Your task to perform on an android device: turn off airplane mode Image 0: 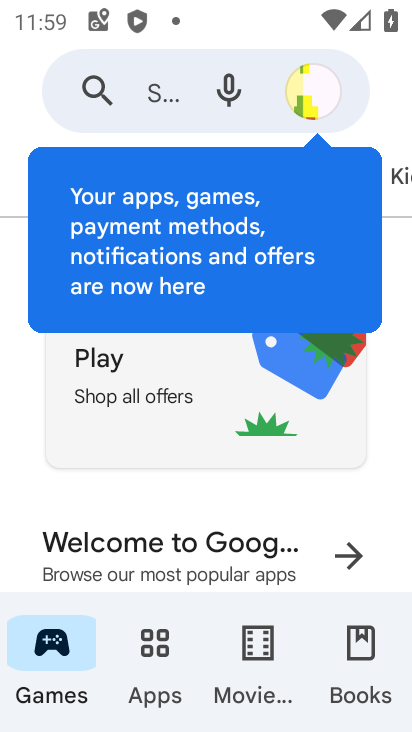
Step 0: press home button
Your task to perform on an android device: turn off airplane mode Image 1: 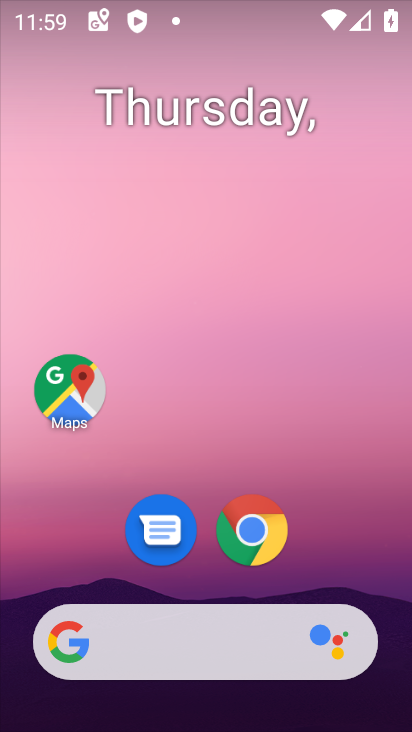
Step 1: drag from (350, 556) to (334, 165)
Your task to perform on an android device: turn off airplane mode Image 2: 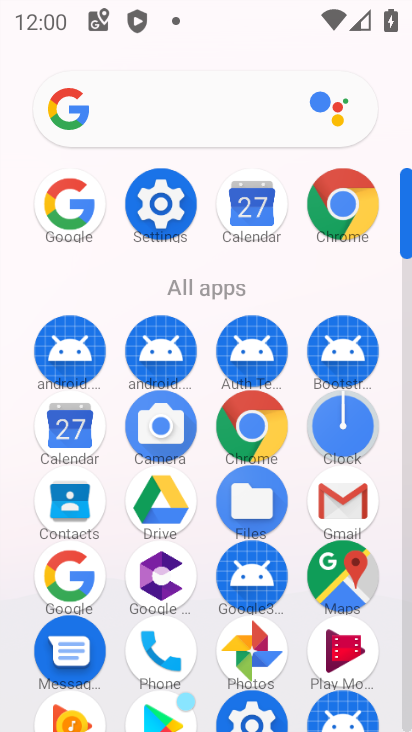
Step 2: click (160, 203)
Your task to perform on an android device: turn off airplane mode Image 3: 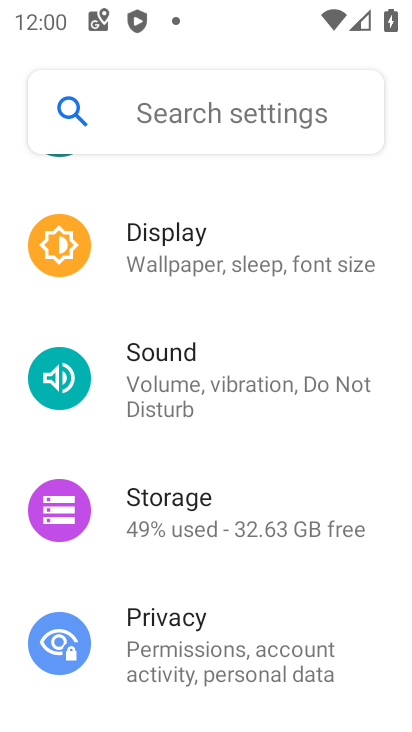
Step 3: drag from (260, 197) to (218, 317)
Your task to perform on an android device: turn off airplane mode Image 4: 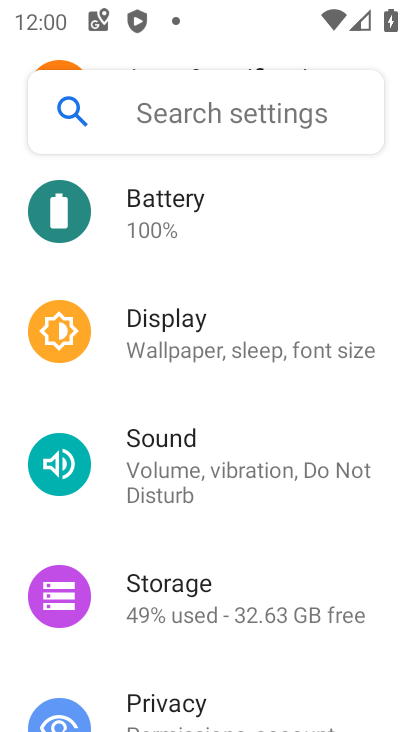
Step 4: drag from (232, 259) to (205, 361)
Your task to perform on an android device: turn off airplane mode Image 5: 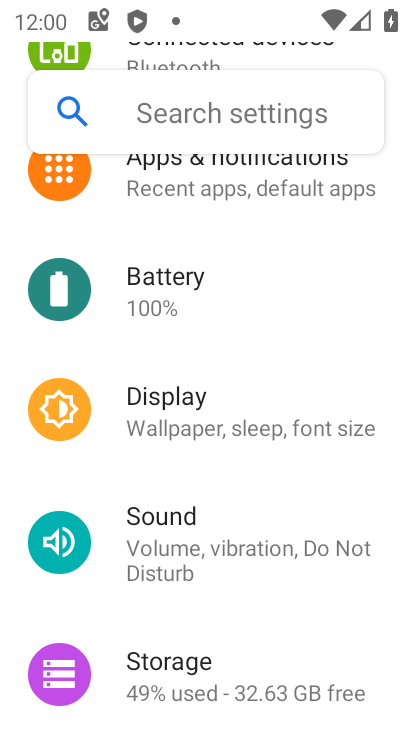
Step 5: drag from (231, 236) to (253, 363)
Your task to perform on an android device: turn off airplane mode Image 6: 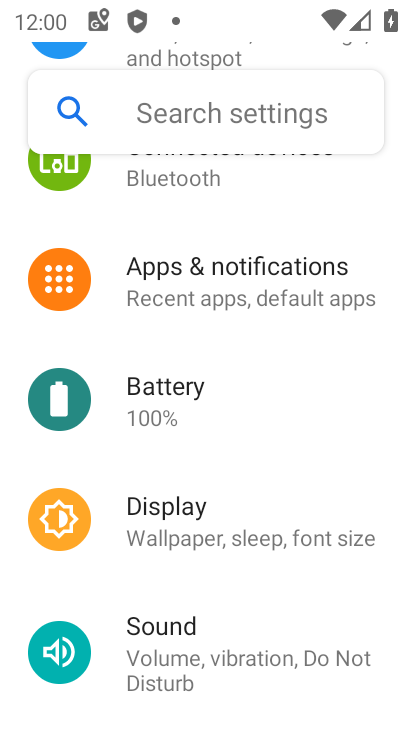
Step 6: drag from (248, 228) to (259, 361)
Your task to perform on an android device: turn off airplane mode Image 7: 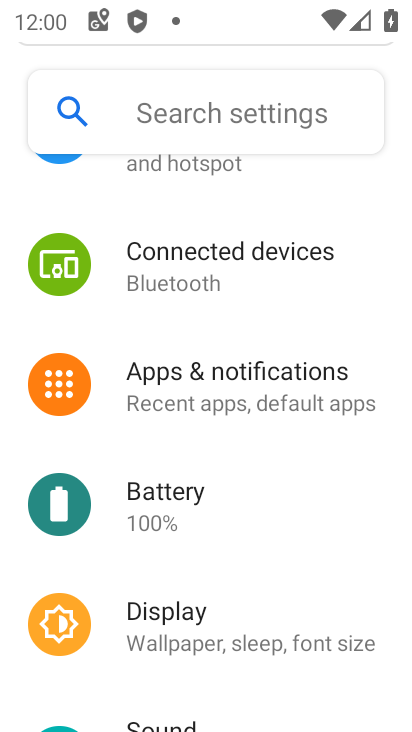
Step 7: drag from (257, 210) to (293, 436)
Your task to perform on an android device: turn off airplane mode Image 8: 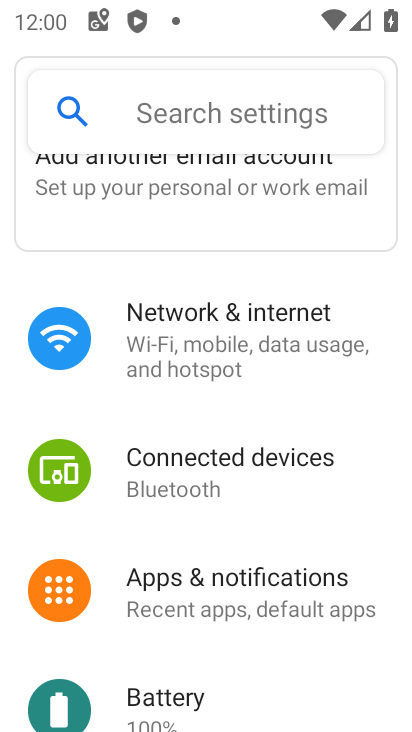
Step 8: click (246, 326)
Your task to perform on an android device: turn off airplane mode Image 9: 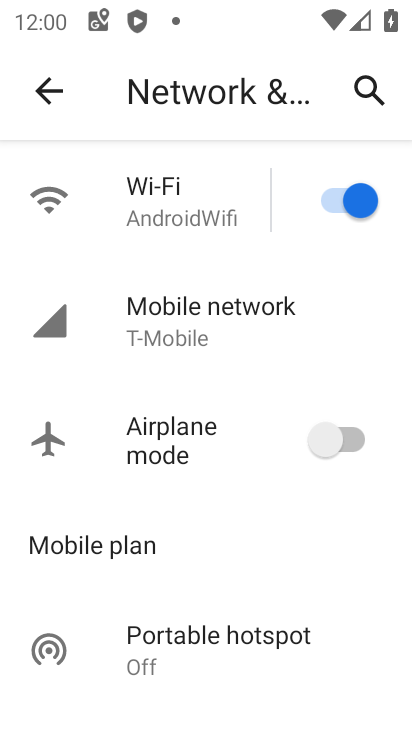
Step 9: task complete